Your task to perform on an android device: Clear all items from cart on bestbuy. Add razer blade to the cart on bestbuy Image 0: 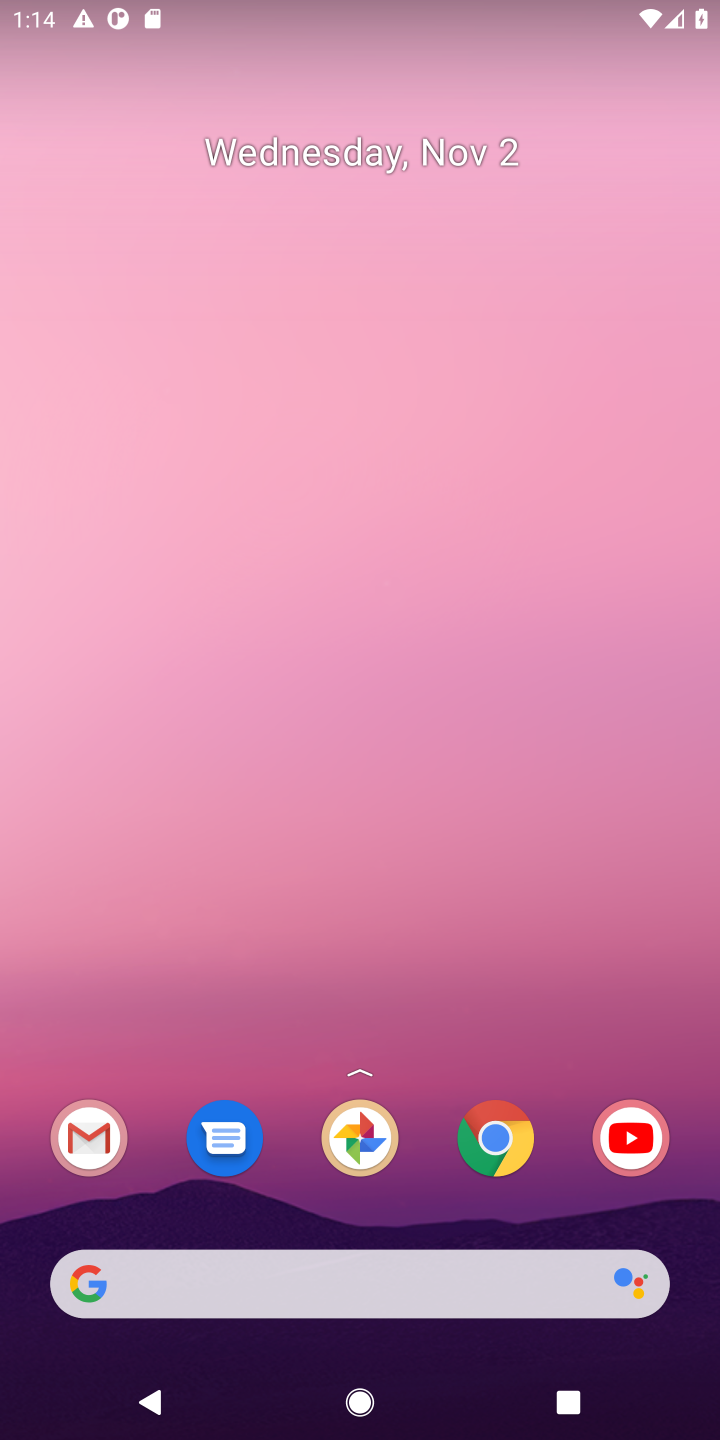
Step 0: click (498, 1113)
Your task to perform on an android device: Clear all items from cart on bestbuy. Add razer blade to the cart on bestbuy Image 1: 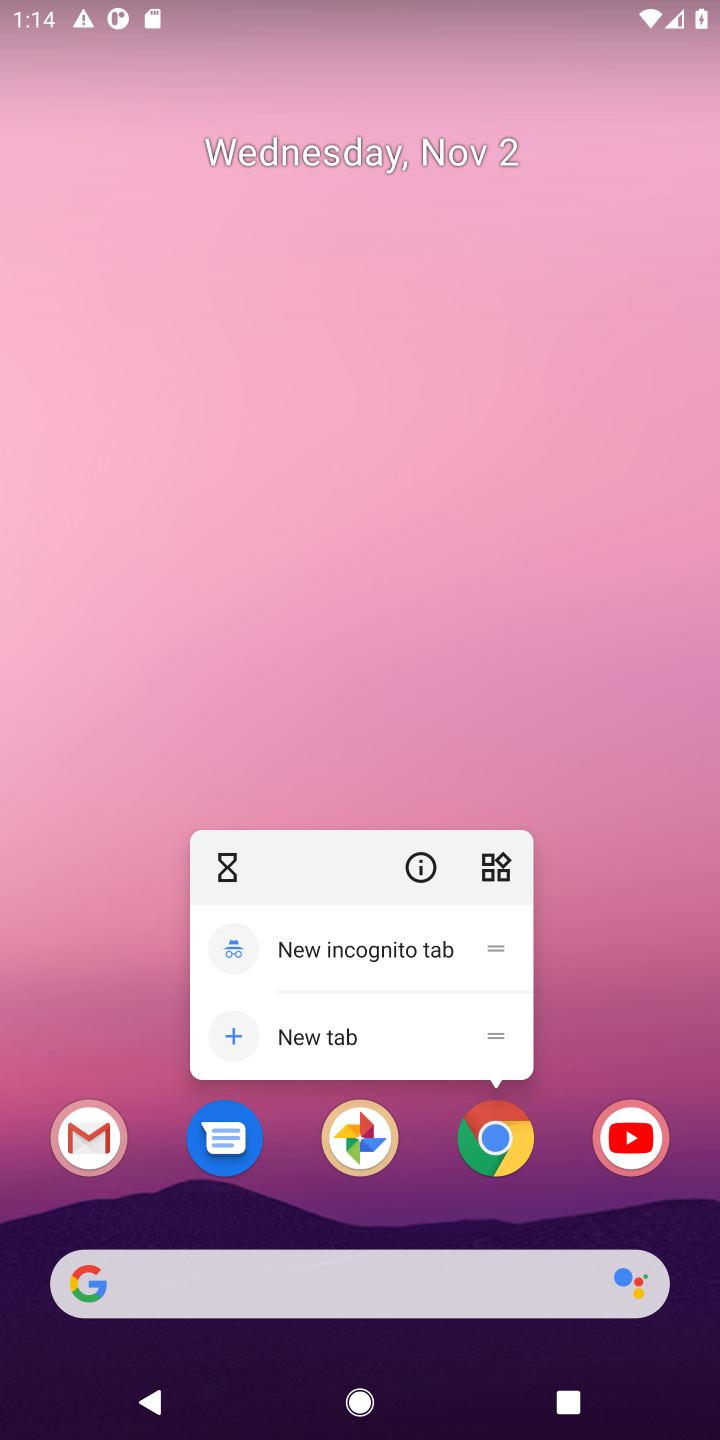
Step 1: click (500, 1144)
Your task to perform on an android device: Clear all items from cart on bestbuy. Add razer blade to the cart on bestbuy Image 2: 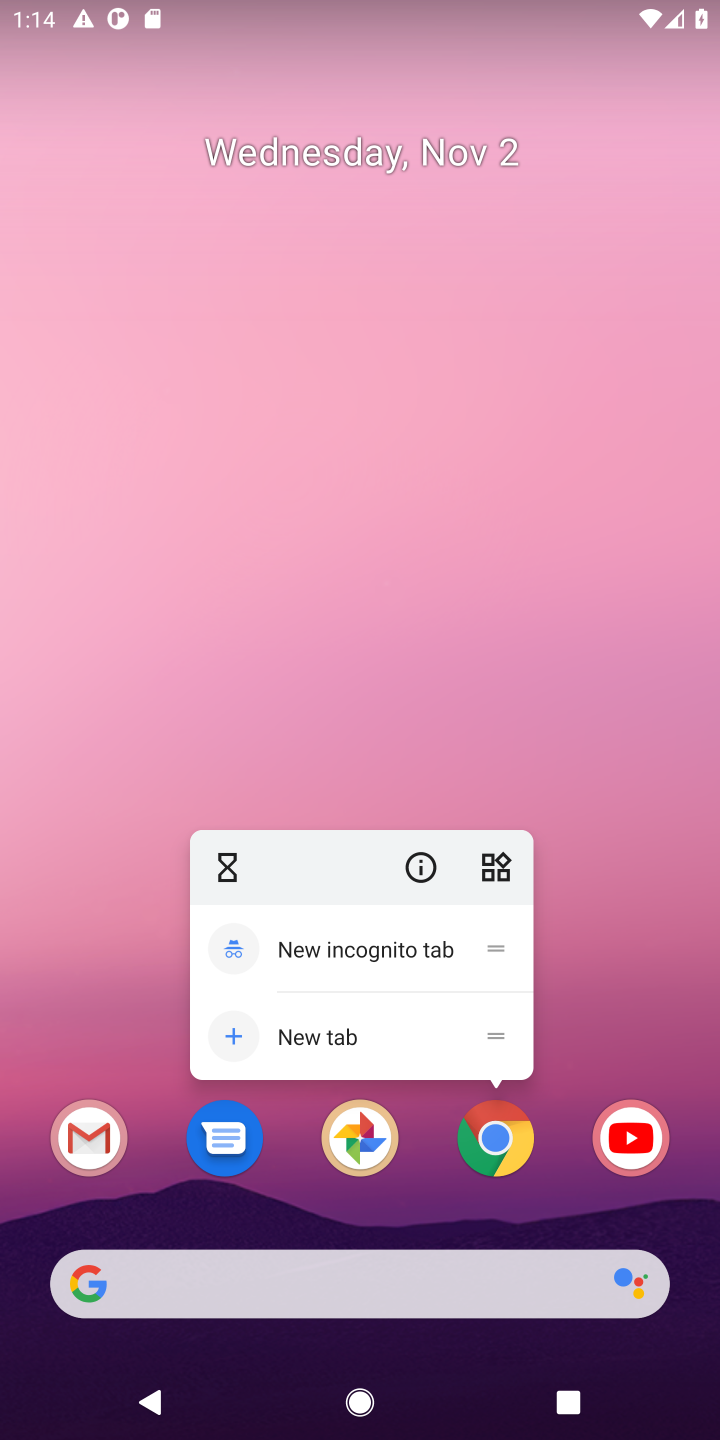
Step 2: click (503, 1152)
Your task to perform on an android device: Clear all items from cart on bestbuy. Add razer blade to the cart on bestbuy Image 3: 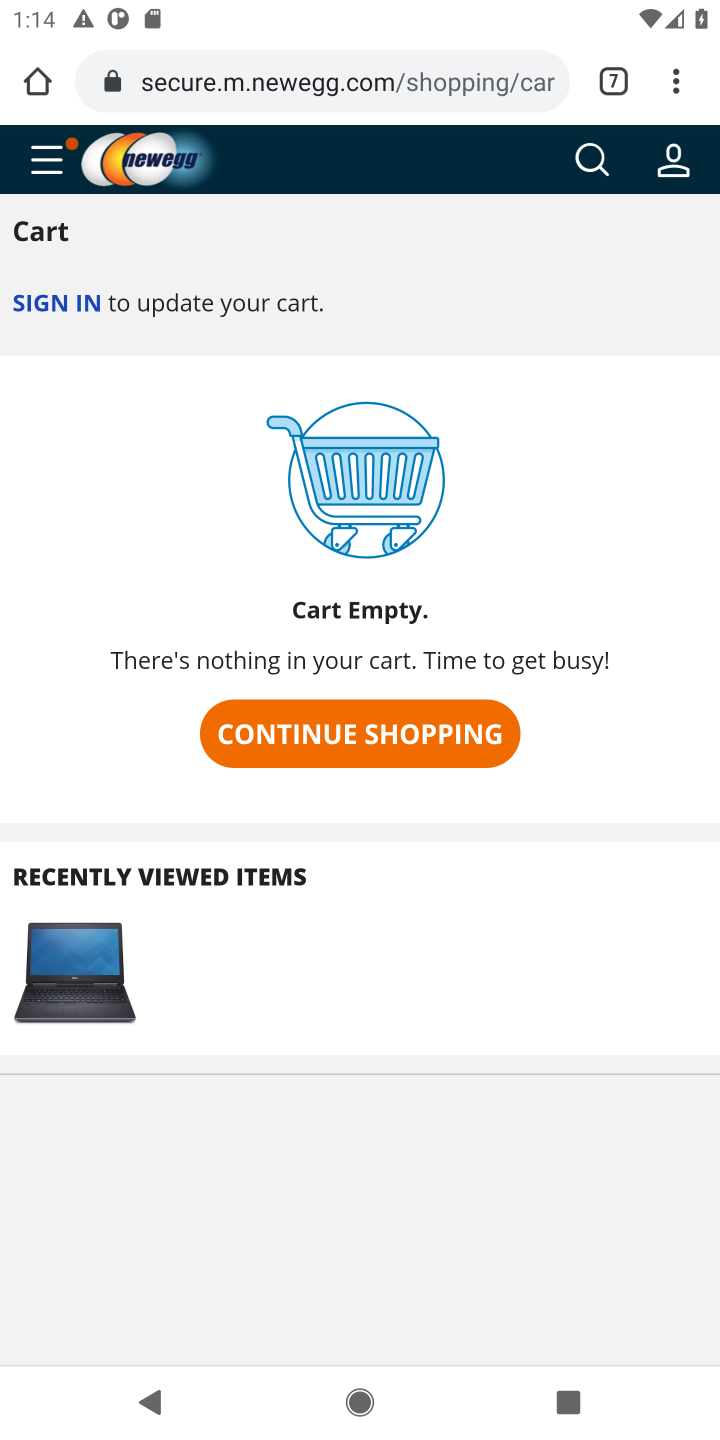
Step 3: click (607, 85)
Your task to perform on an android device: Clear all items from cart on bestbuy. Add razer blade to the cart on bestbuy Image 4: 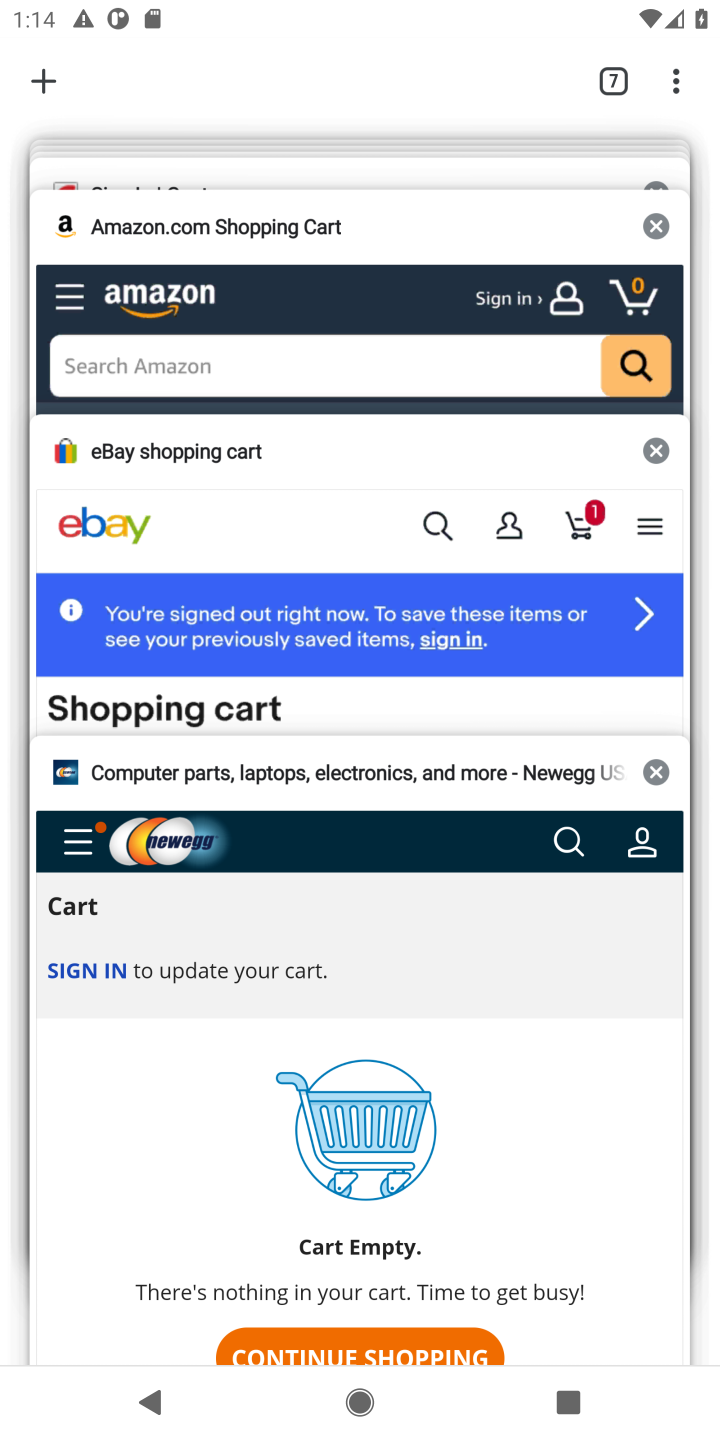
Step 4: drag from (352, 298) to (338, 696)
Your task to perform on an android device: Clear all items from cart on bestbuy. Add razer blade to the cart on bestbuy Image 5: 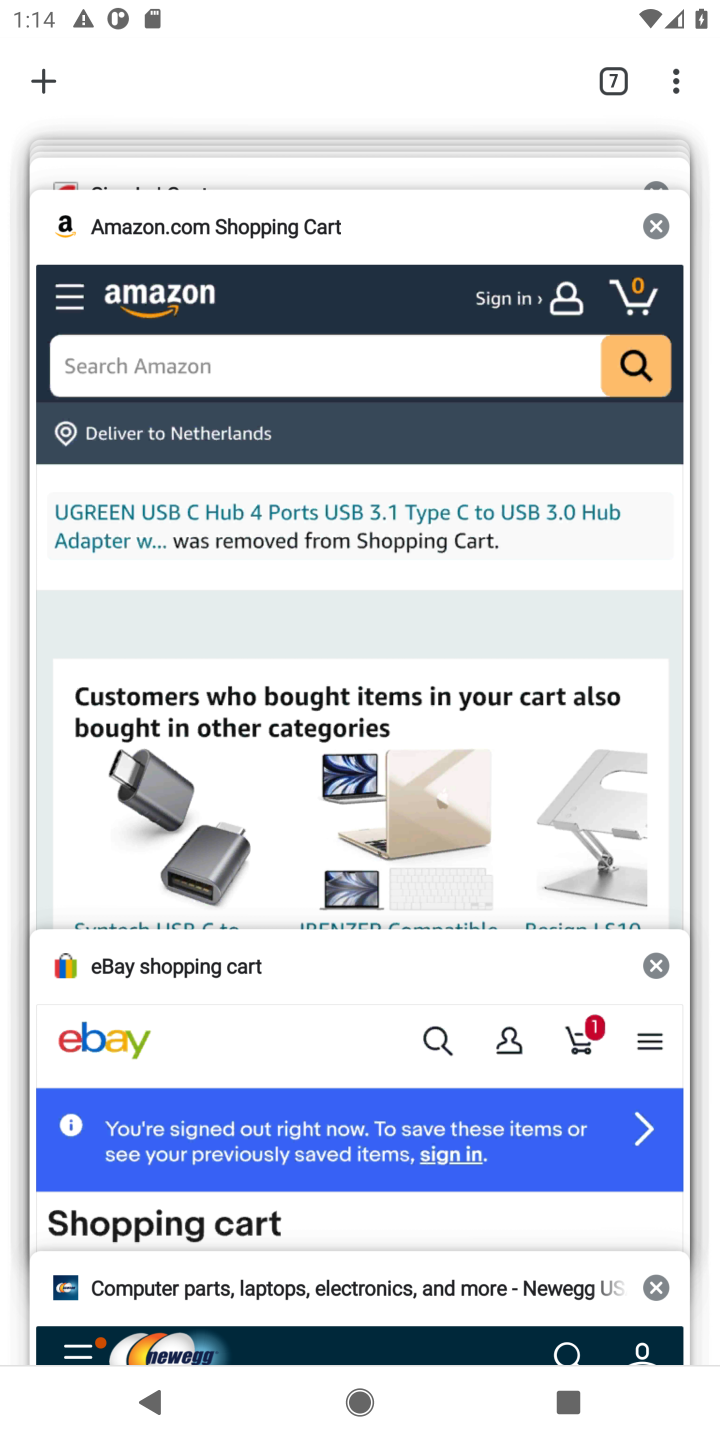
Step 5: drag from (433, 178) to (590, 752)
Your task to perform on an android device: Clear all items from cart on bestbuy. Add razer blade to the cart on bestbuy Image 6: 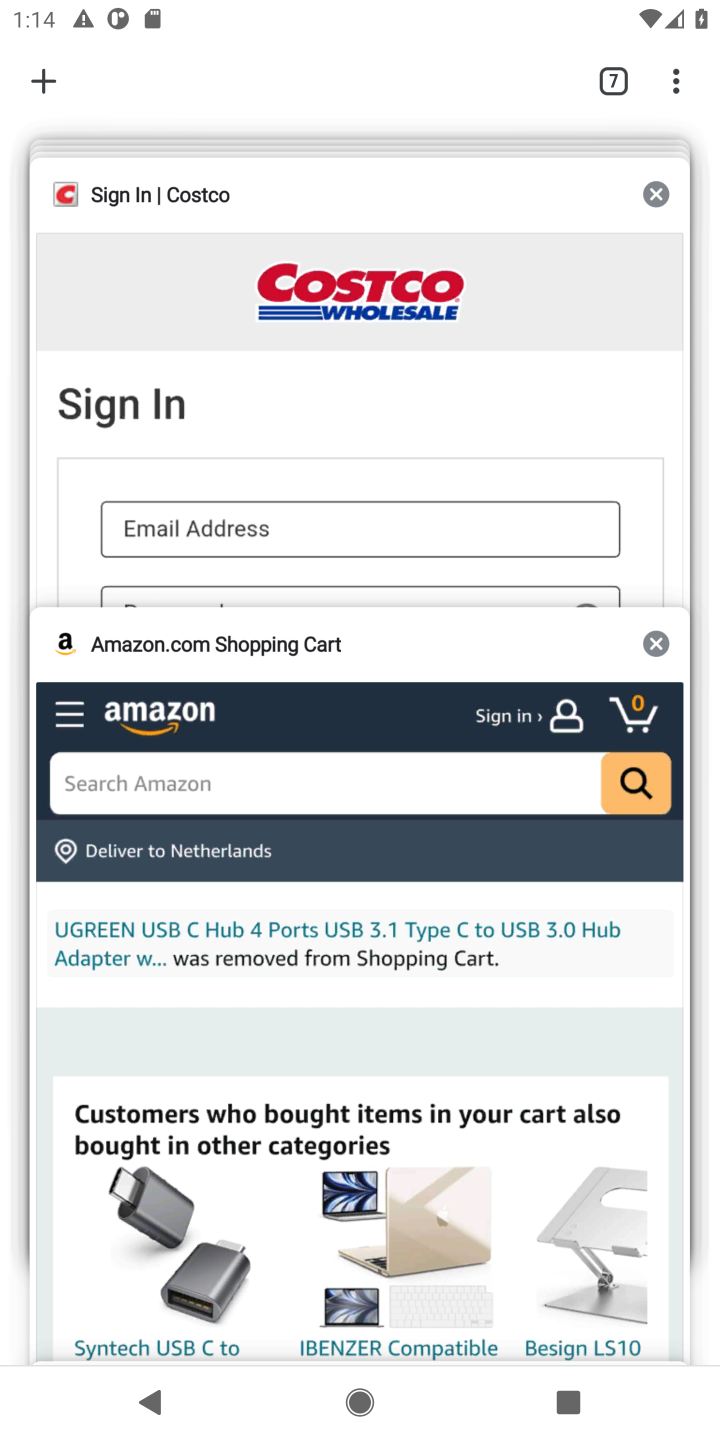
Step 6: drag from (567, 250) to (494, 575)
Your task to perform on an android device: Clear all items from cart on bestbuy. Add razer blade to the cart on bestbuy Image 7: 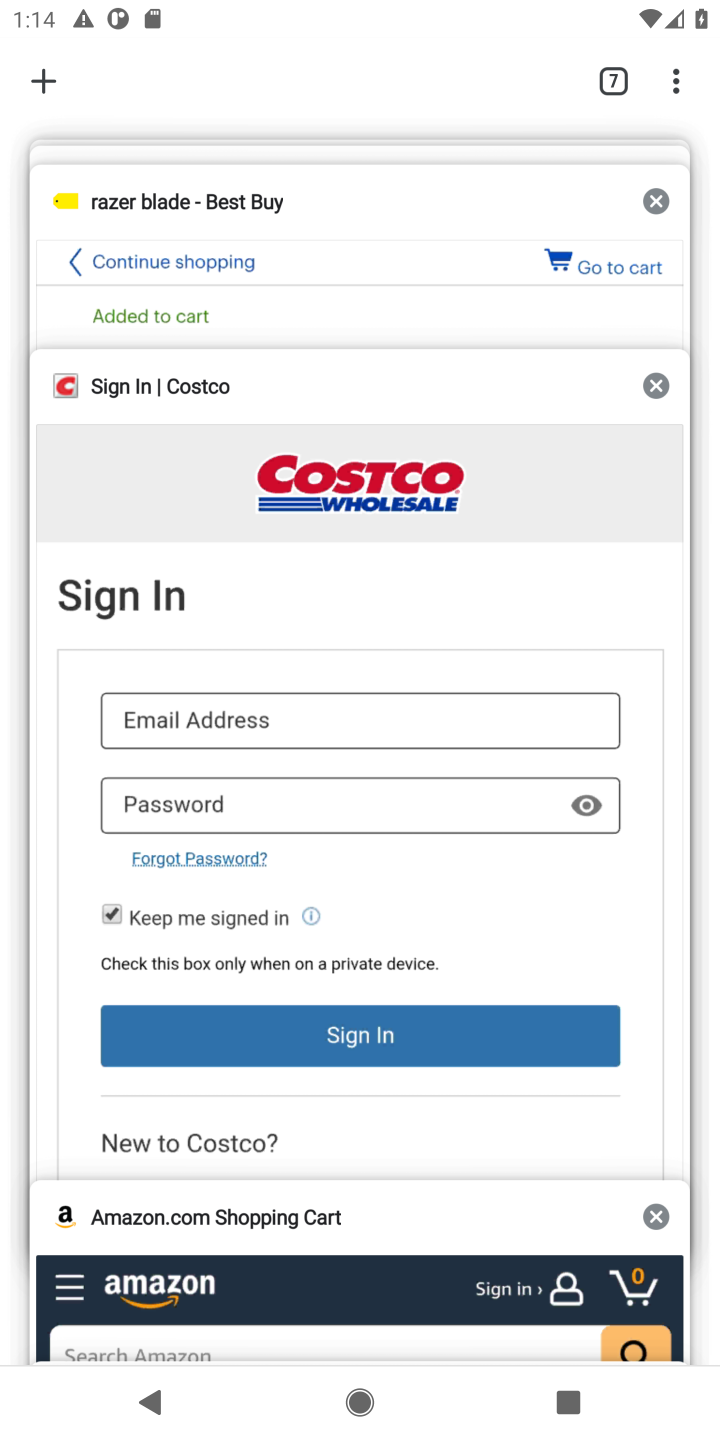
Step 7: click (423, 230)
Your task to perform on an android device: Clear all items from cart on bestbuy. Add razer blade to the cart on bestbuy Image 8: 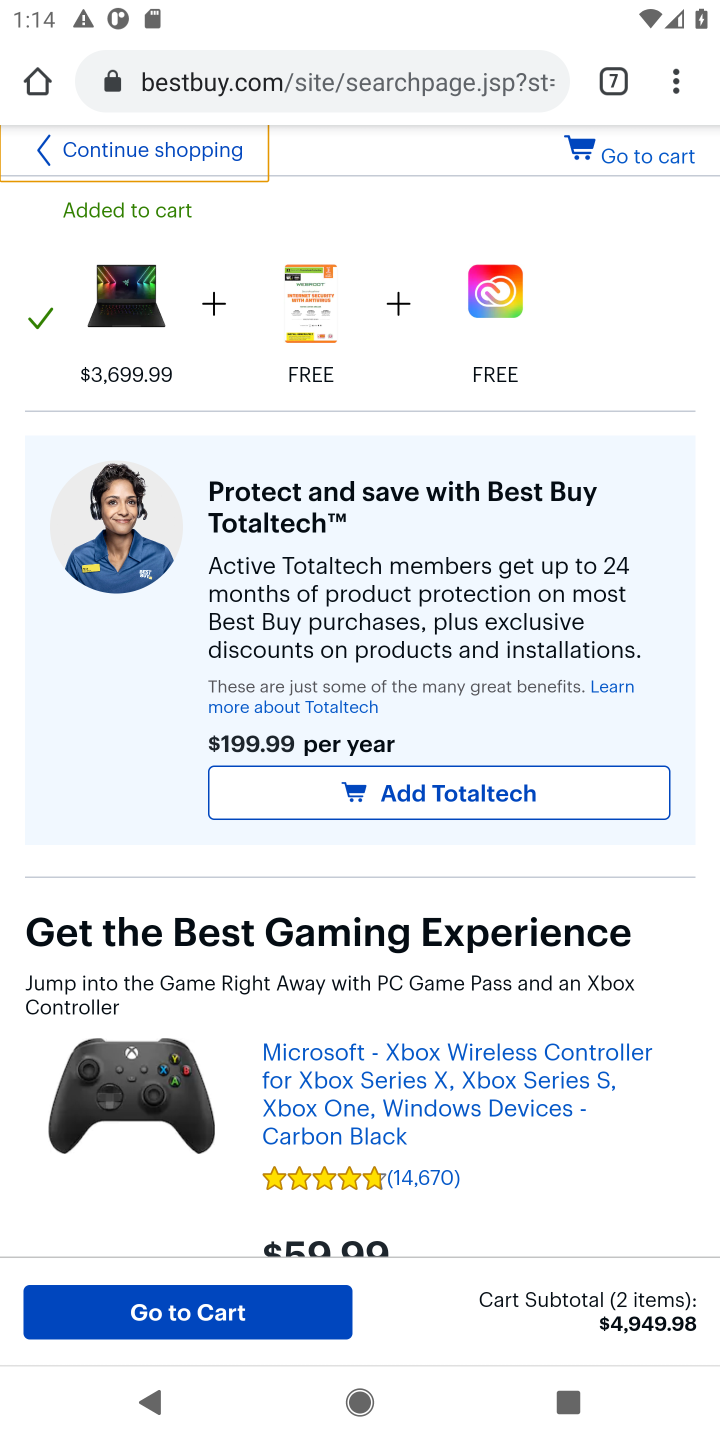
Step 8: click (164, 153)
Your task to perform on an android device: Clear all items from cart on bestbuy. Add razer blade to the cart on bestbuy Image 9: 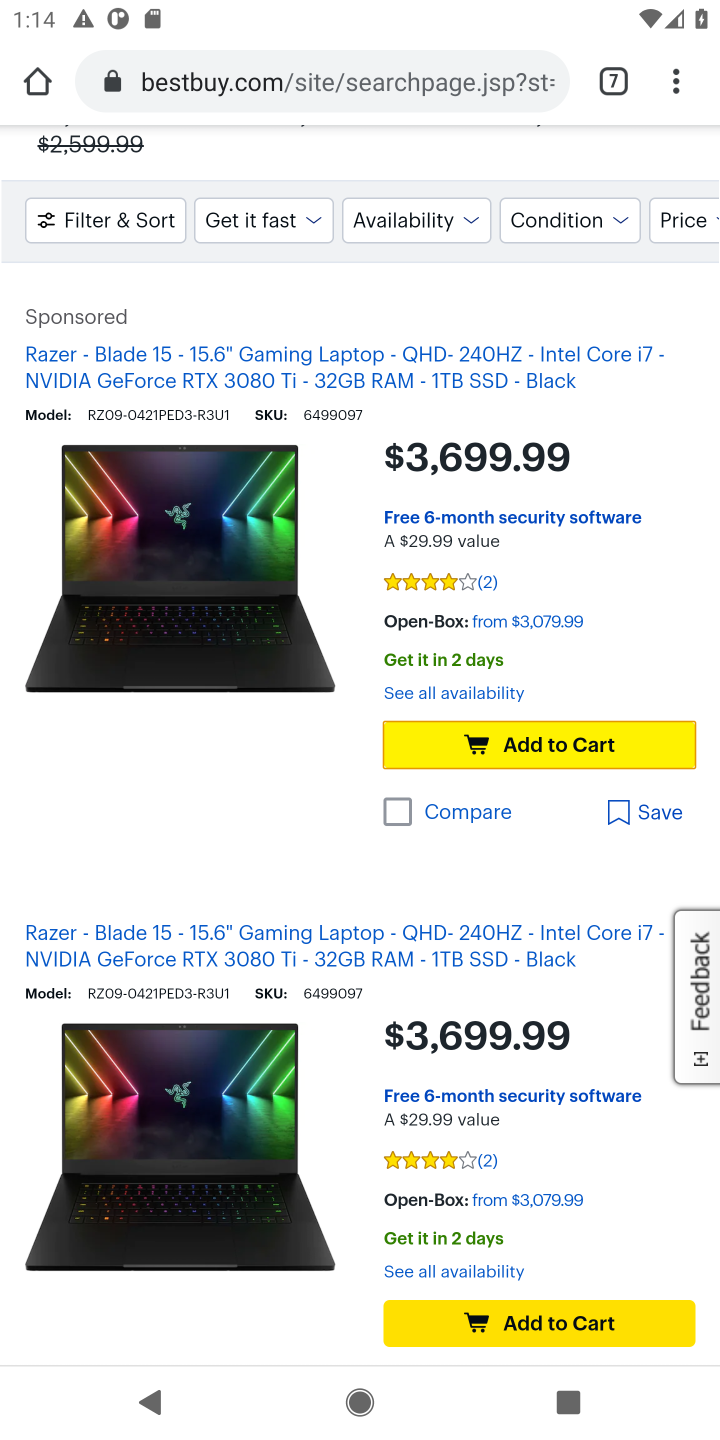
Step 9: drag from (405, 155) to (461, 1016)
Your task to perform on an android device: Clear all items from cart on bestbuy. Add razer blade to the cart on bestbuy Image 10: 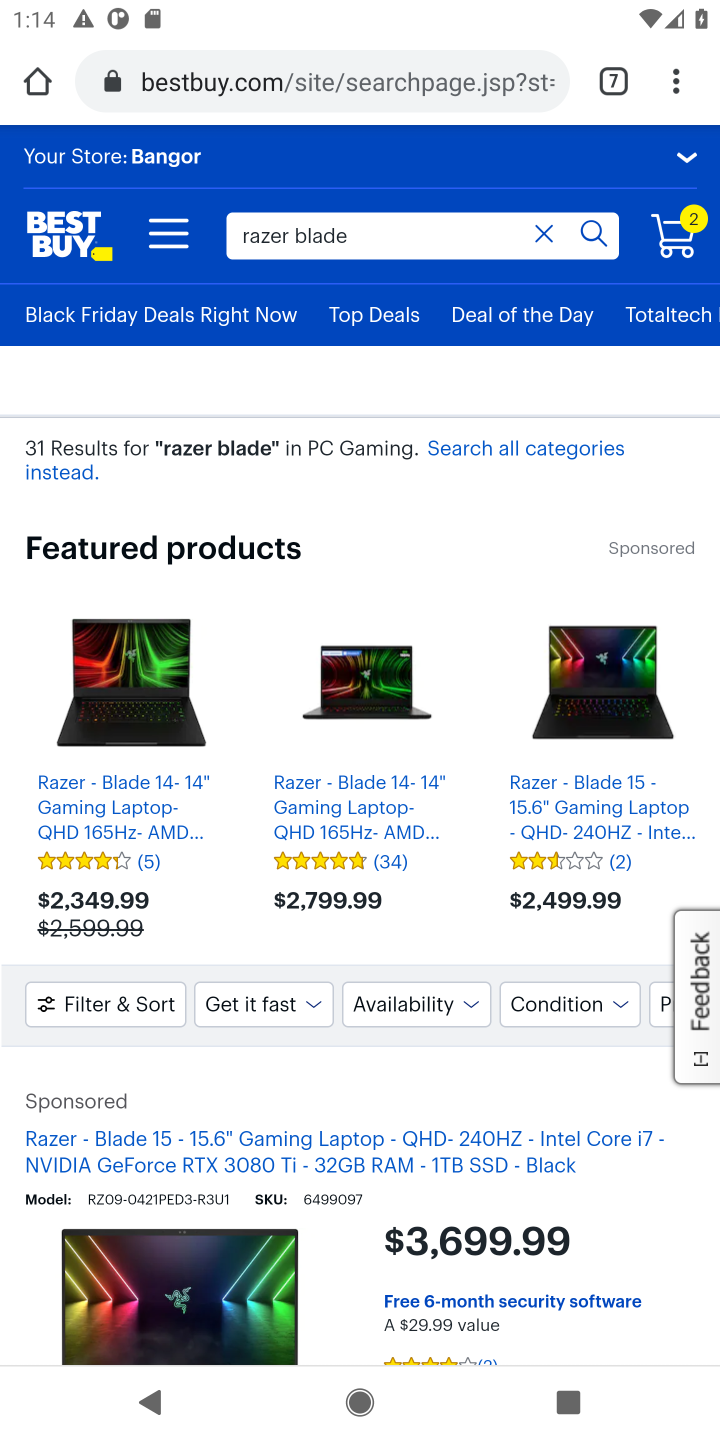
Step 10: drag from (562, 1241) to (576, 899)
Your task to perform on an android device: Clear all items from cart on bestbuy. Add razer blade to the cart on bestbuy Image 11: 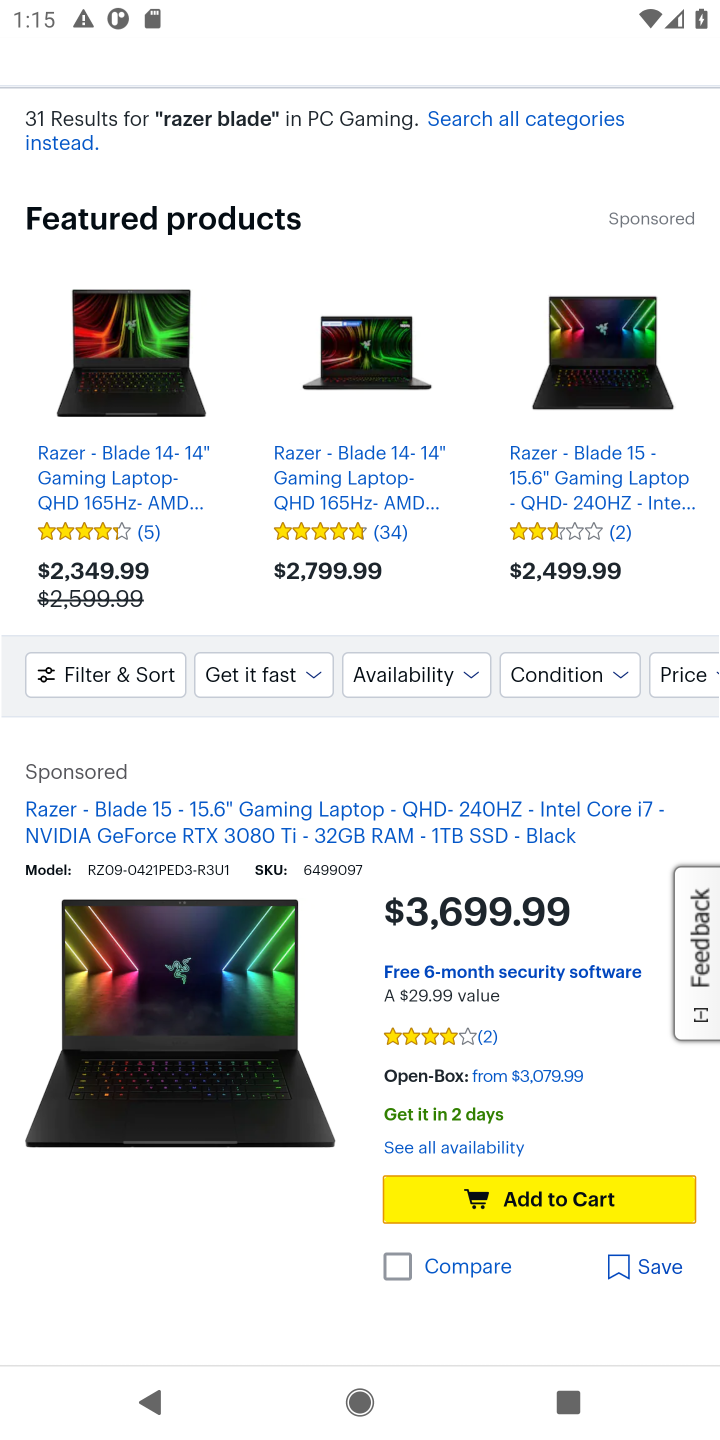
Step 11: drag from (488, 435) to (475, 1119)
Your task to perform on an android device: Clear all items from cart on bestbuy. Add razer blade to the cart on bestbuy Image 12: 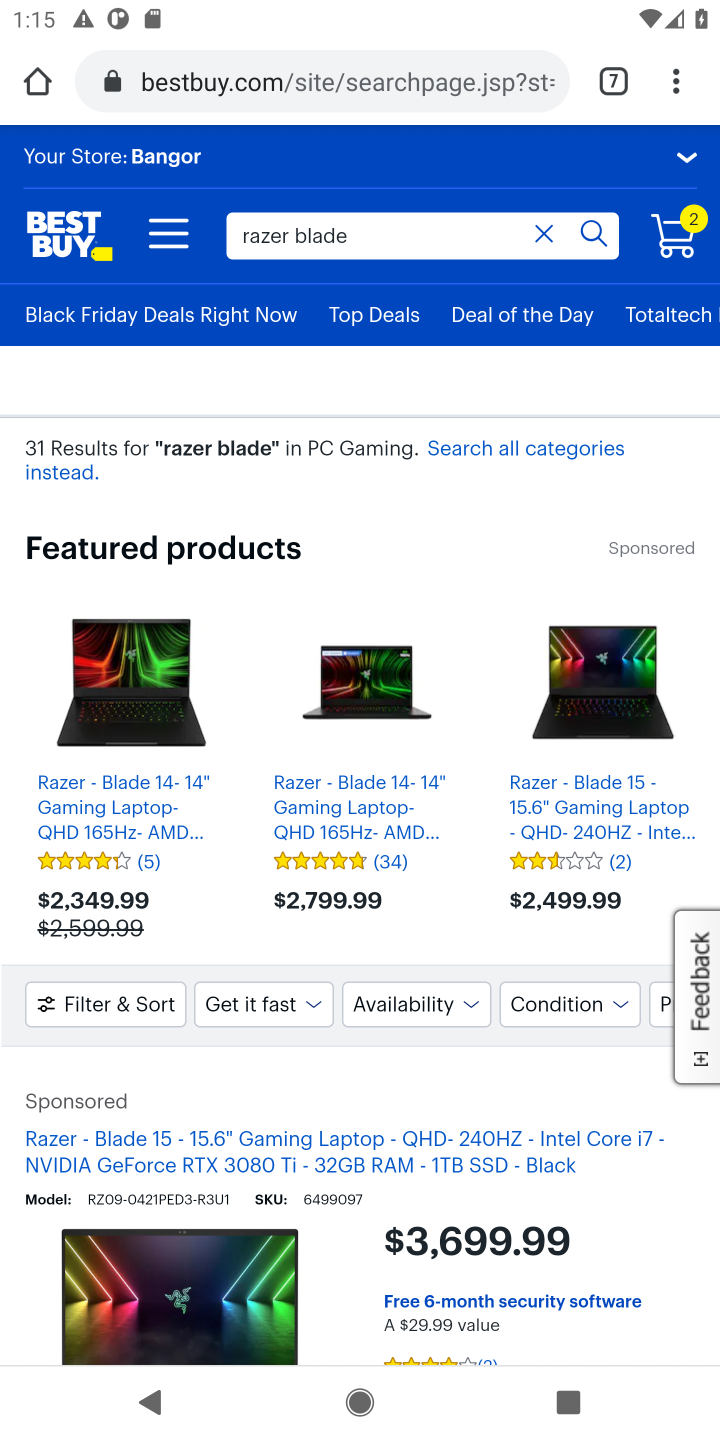
Step 12: click (675, 225)
Your task to perform on an android device: Clear all items from cart on bestbuy. Add razer blade to the cart on bestbuy Image 13: 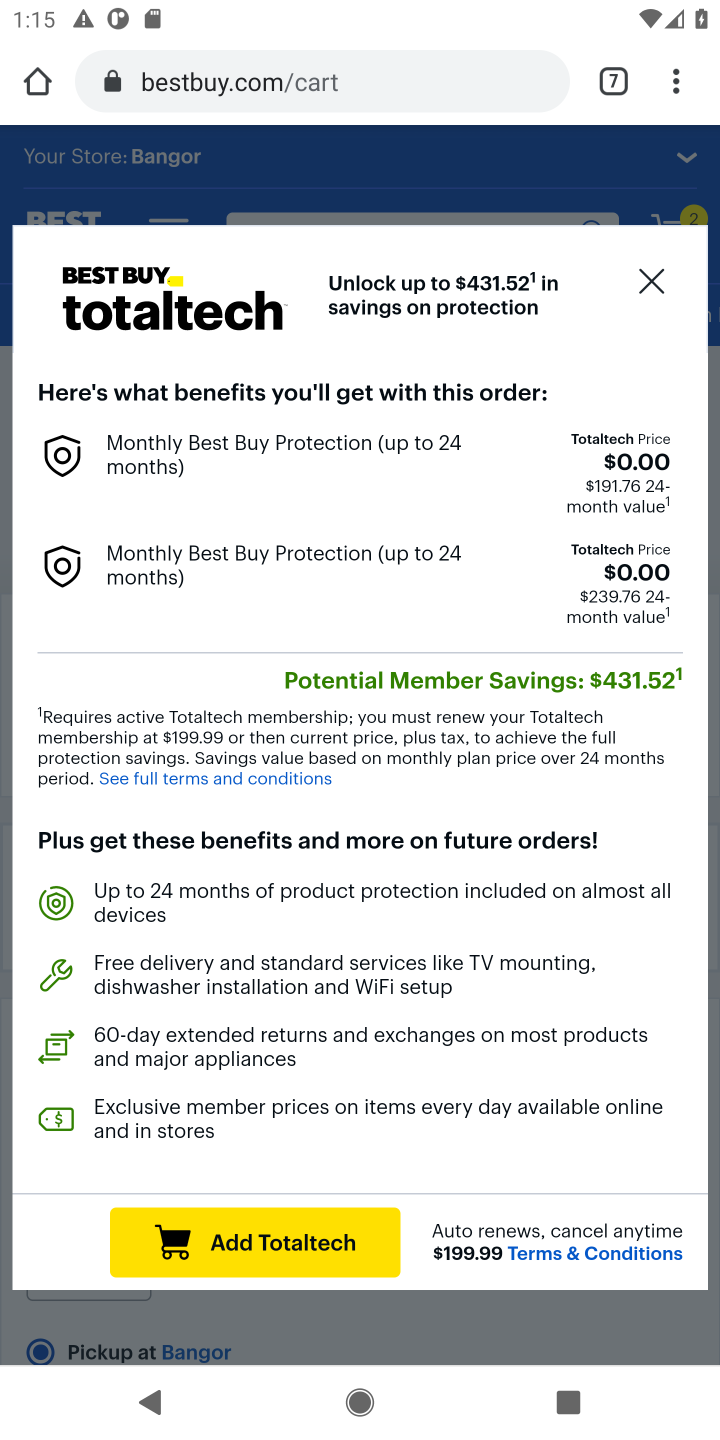
Step 13: click (655, 277)
Your task to perform on an android device: Clear all items from cart on bestbuy. Add razer blade to the cart on bestbuy Image 14: 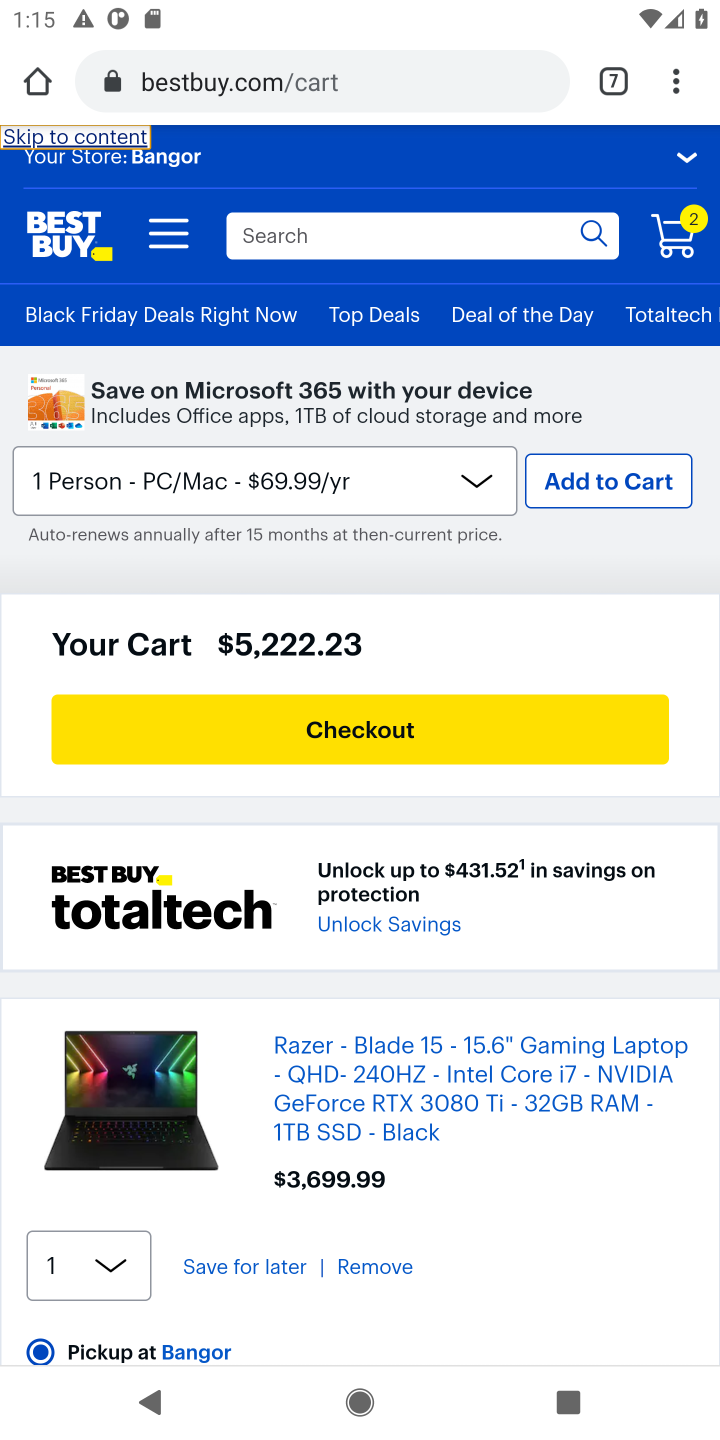
Step 14: task complete